Your task to perform on an android device: Search for vegetarian restaurants on Maps Image 0: 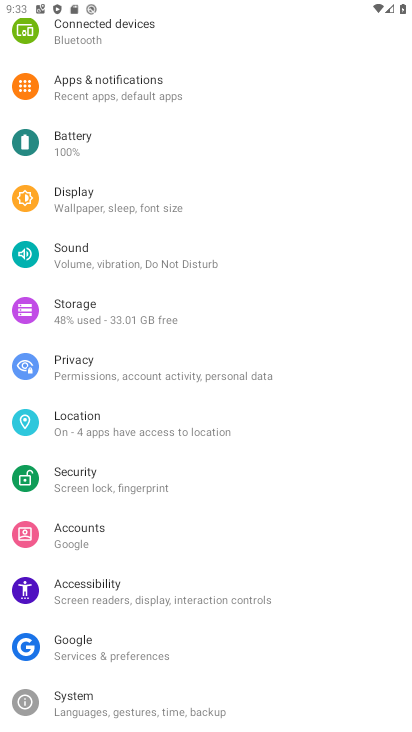
Step 0: press home button
Your task to perform on an android device: Search for vegetarian restaurants on Maps Image 1: 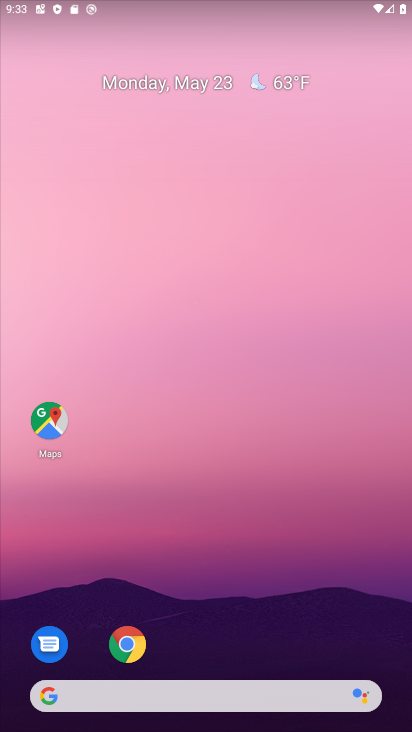
Step 1: click (47, 418)
Your task to perform on an android device: Search for vegetarian restaurants on Maps Image 2: 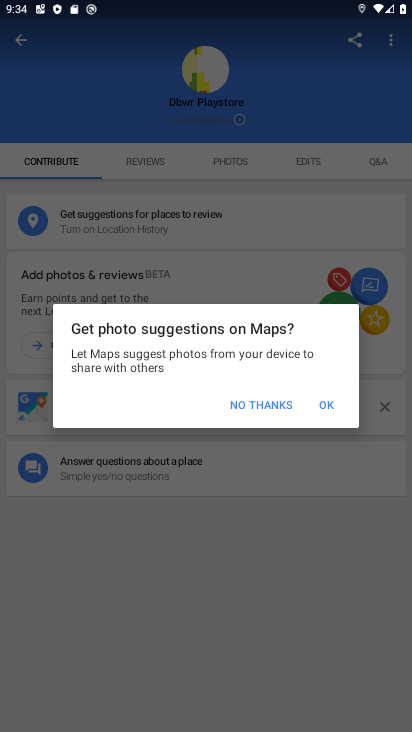
Step 2: click (272, 405)
Your task to perform on an android device: Search for vegetarian restaurants on Maps Image 3: 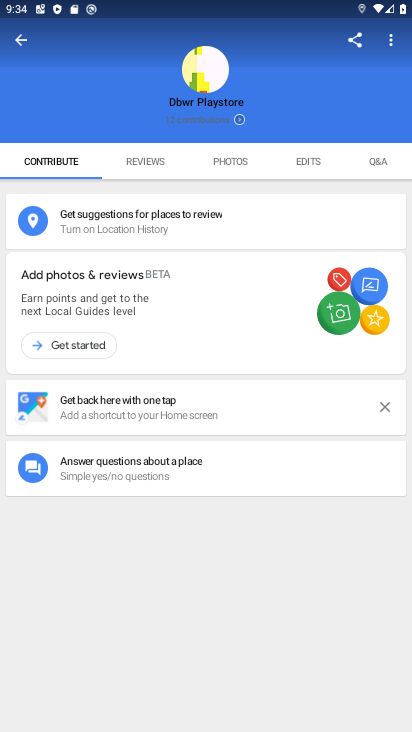
Step 3: click (20, 43)
Your task to perform on an android device: Search for vegetarian restaurants on Maps Image 4: 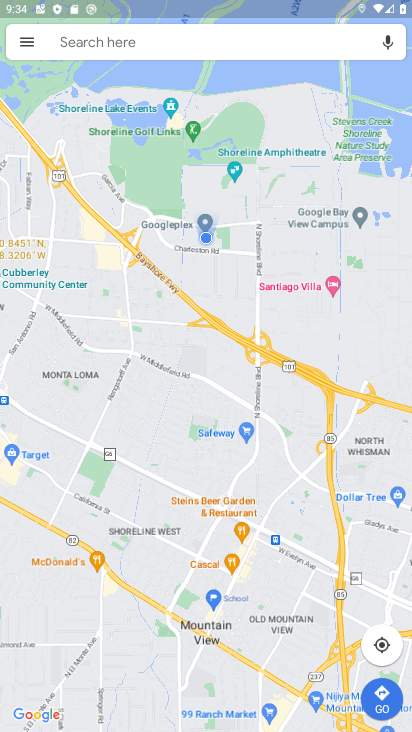
Step 4: click (107, 40)
Your task to perform on an android device: Search for vegetarian restaurants on Maps Image 5: 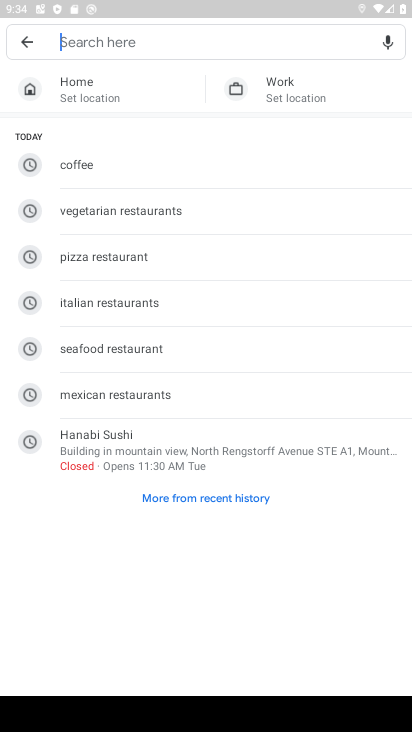
Step 5: click (99, 206)
Your task to perform on an android device: Search for vegetarian restaurants on Maps Image 6: 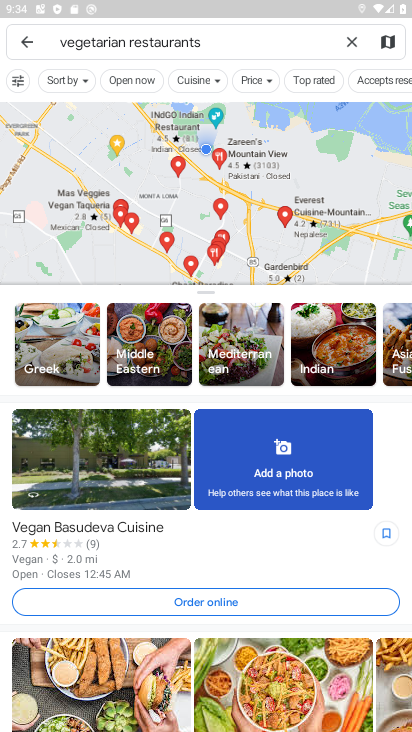
Step 6: task complete